Your task to perform on an android device: Search for top rated burger restaurants on Google Maps Image 0: 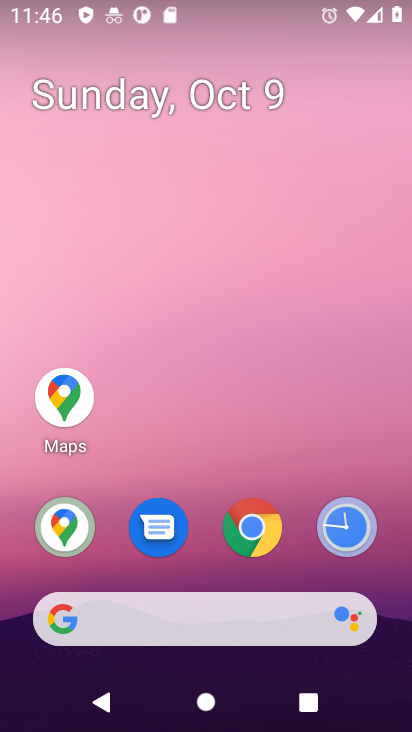
Step 0: click (66, 392)
Your task to perform on an android device: Search for top rated burger restaurants on Google Maps Image 1: 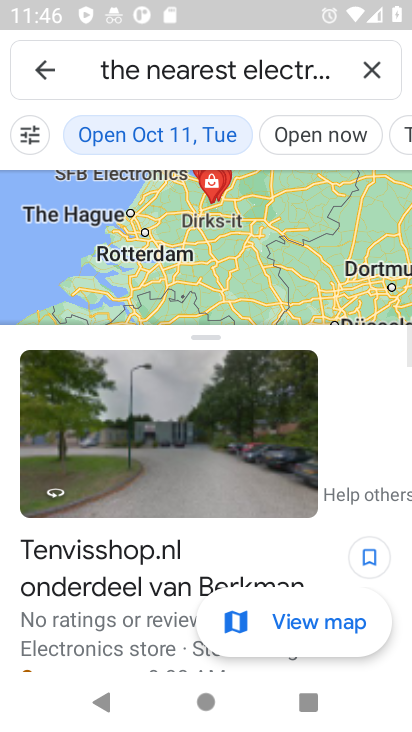
Step 1: click (239, 65)
Your task to perform on an android device: Search for top rated burger restaurants on Google Maps Image 2: 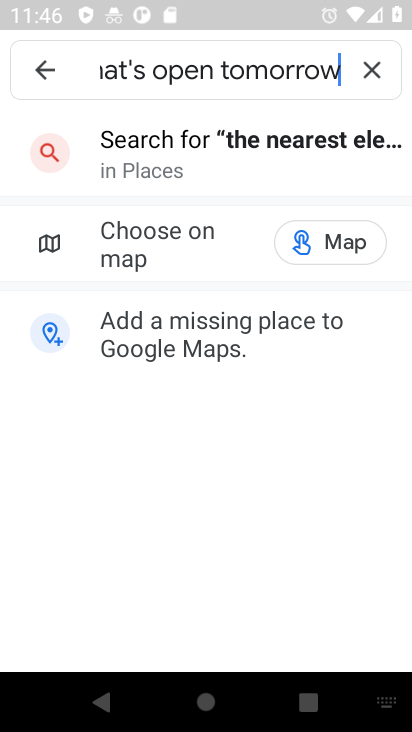
Step 2: click (373, 65)
Your task to perform on an android device: Search for top rated burger restaurants on Google Maps Image 3: 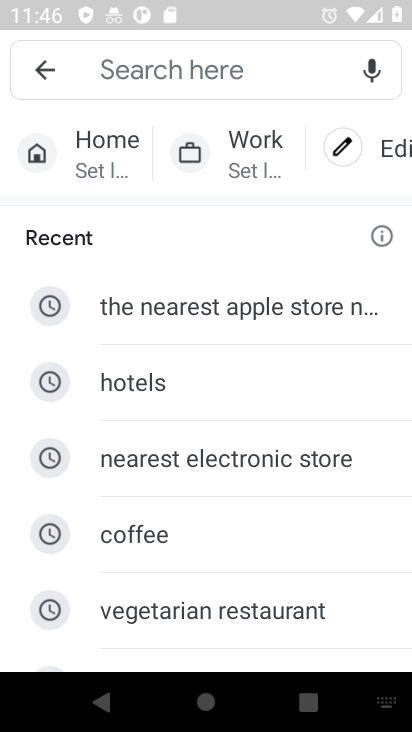
Step 3: type "top rated burger restaurants"
Your task to perform on an android device: Search for top rated burger restaurants on Google Maps Image 4: 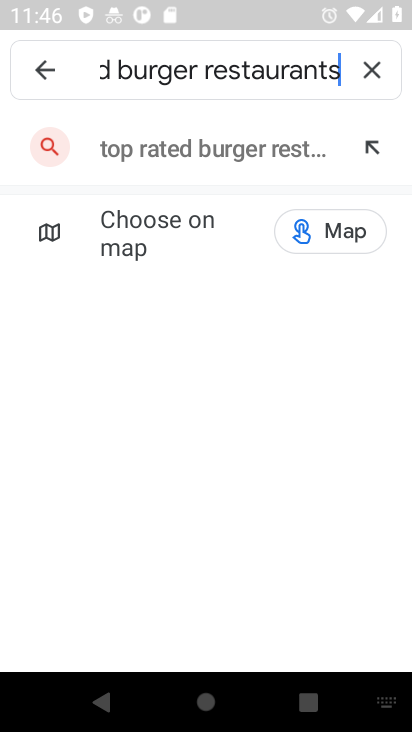
Step 4: click (179, 159)
Your task to perform on an android device: Search for top rated burger restaurants on Google Maps Image 5: 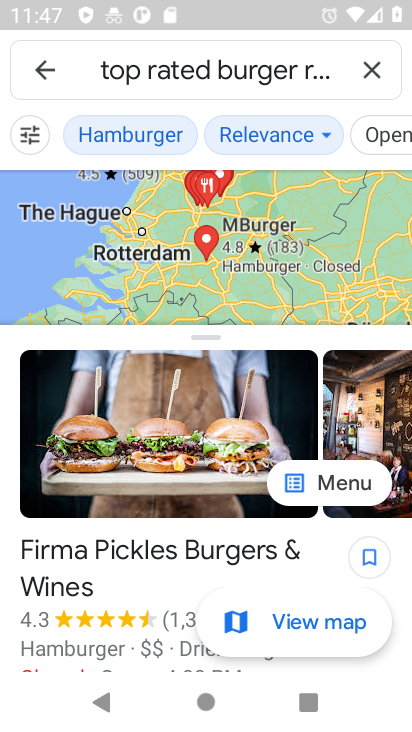
Step 5: task complete